Your task to perform on an android device: Turn on the flashlight Image 0: 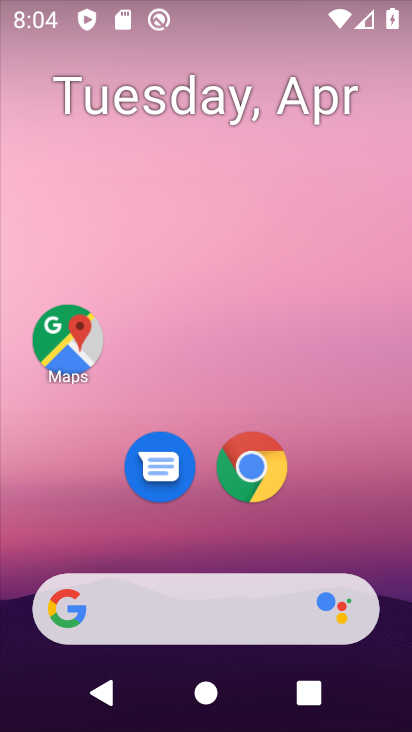
Step 0: drag from (220, 15) to (221, 444)
Your task to perform on an android device: Turn on the flashlight Image 1: 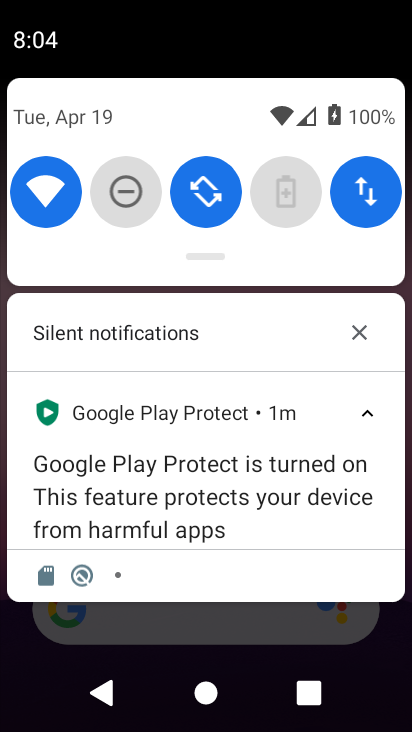
Step 1: task complete